Your task to perform on an android device: Open Yahoo.com Image 0: 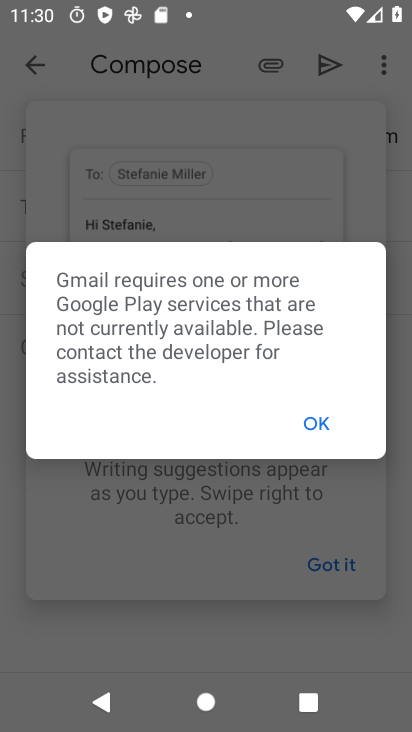
Step 0: press home button
Your task to perform on an android device: Open Yahoo.com Image 1: 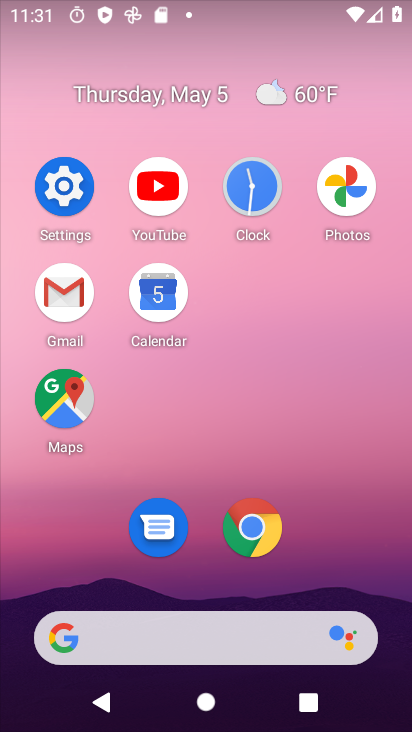
Step 1: click (261, 516)
Your task to perform on an android device: Open Yahoo.com Image 2: 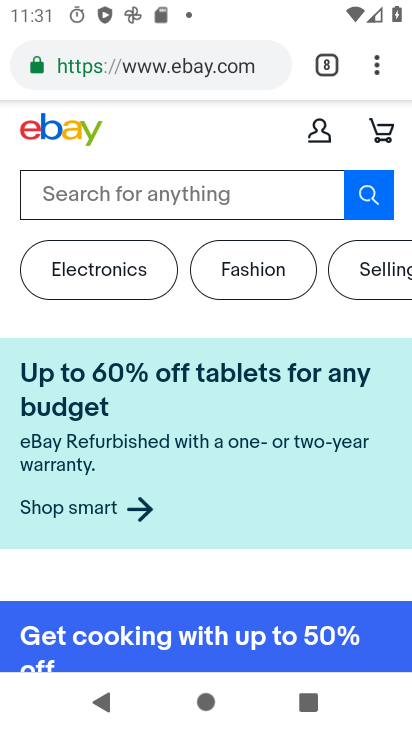
Step 2: click (330, 68)
Your task to perform on an android device: Open Yahoo.com Image 3: 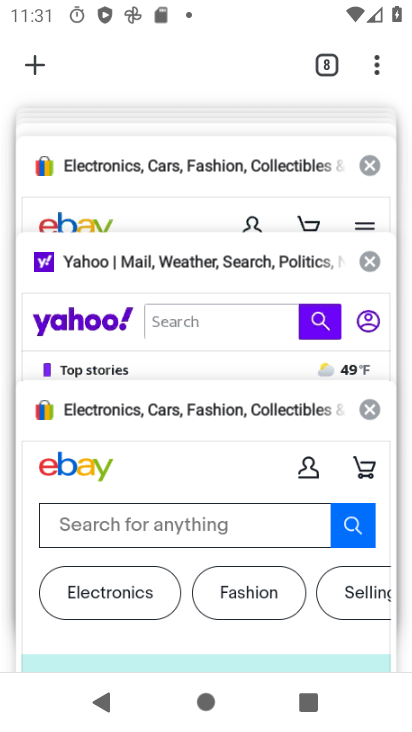
Step 3: click (87, 318)
Your task to perform on an android device: Open Yahoo.com Image 4: 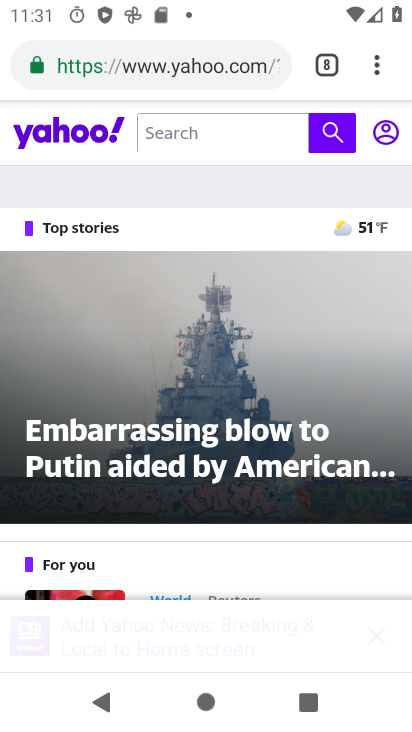
Step 4: task complete